Your task to perform on an android device: turn off improve location accuracy Image 0: 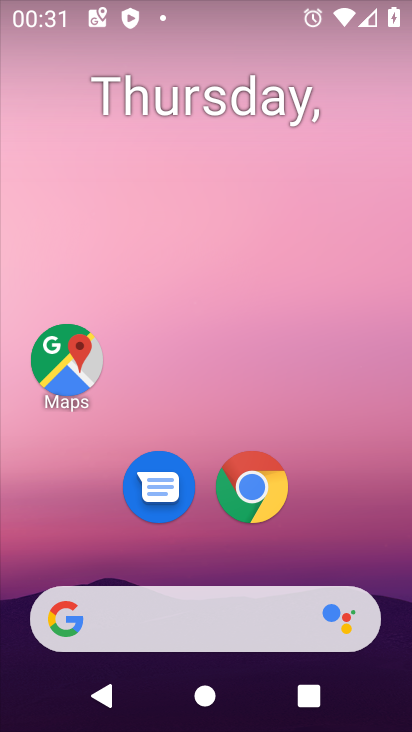
Step 0: drag from (350, 561) to (380, 34)
Your task to perform on an android device: turn off improve location accuracy Image 1: 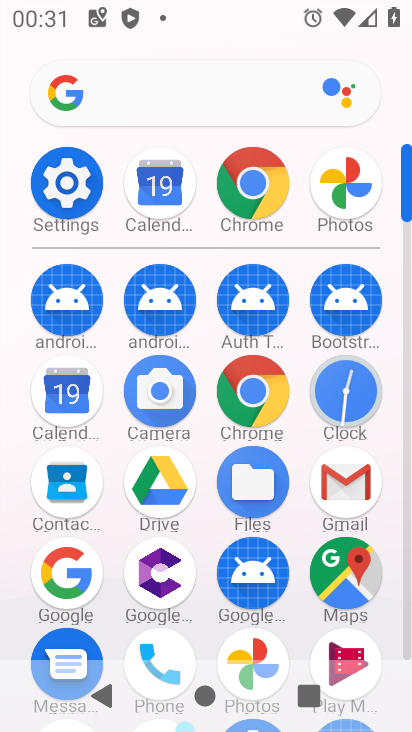
Step 1: click (71, 177)
Your task to perform on an android device: turn off improve location accuracy Image 2: 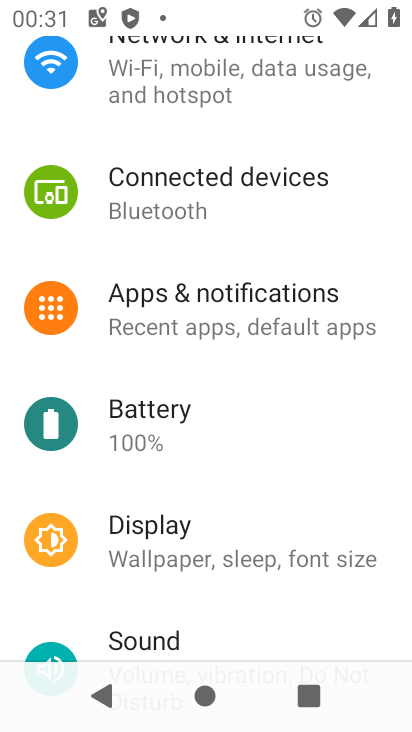
Step 2: drag from (270, 443) to (261, 185)
Your task to perform on an android device: turn off improve location accuracy Image 3: 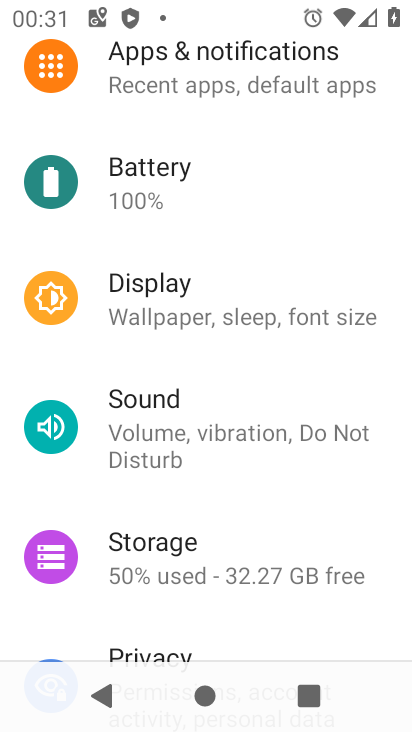
Step 3: drag from (240, 484) to (224, 183)
Your task to perform on an android device: turn off improve location accuracy Image 4: 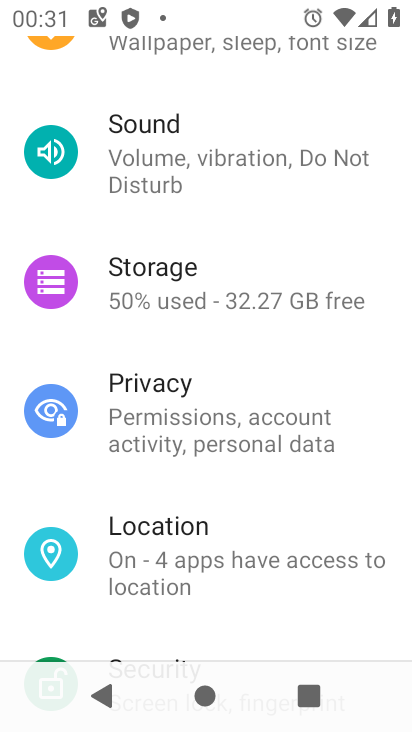
Step 4: drag from (244, 472) to (240, 211)
Your task to perform on an android device: turn off improve location accuracy Image 5: 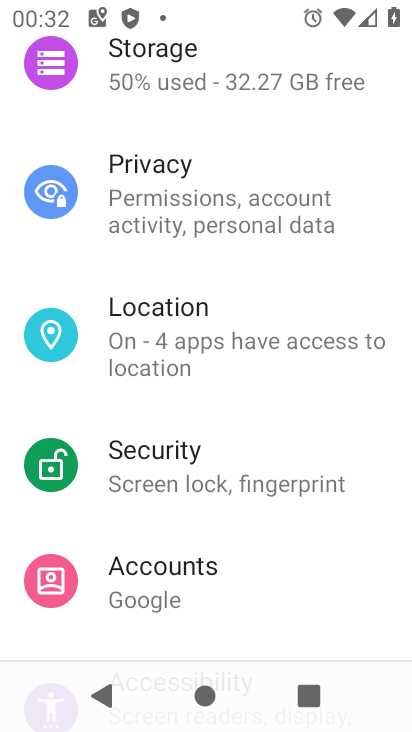
Step 5: click (158, 336)
Your task to perform on an android device: turn off improve location accuracy Image 6: 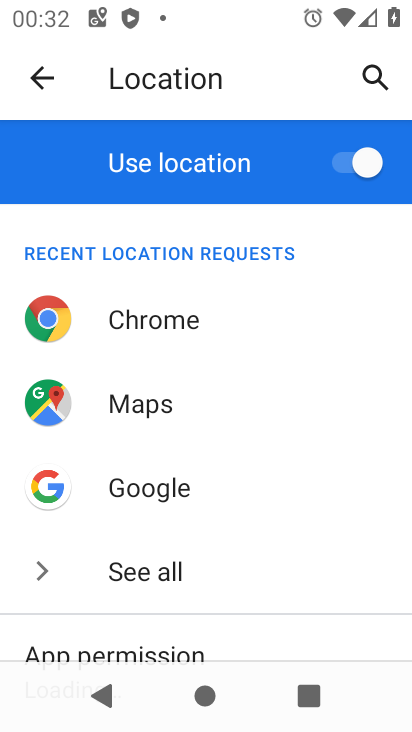
Step 6: drag from (201, 469) to (179, 81)
Your task to perform on an android device: turn off improve location accuracy Image 7: 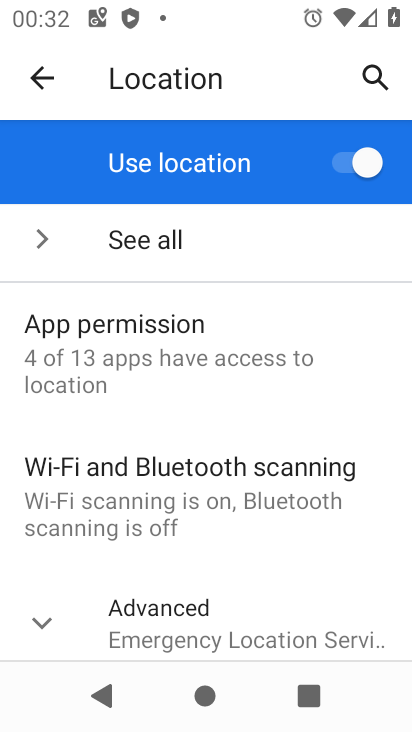
Step 7: click (38, 626)
Your task to perform on an android device: turn off improve location accuracy Image 8: 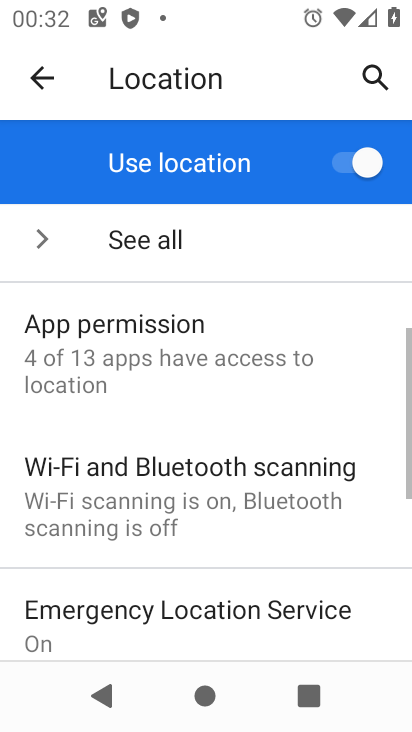
Step 8: drag from (188, 620) to (189, 172)
Your task to perform on an android device: turn off improve location accuracy Image 9: 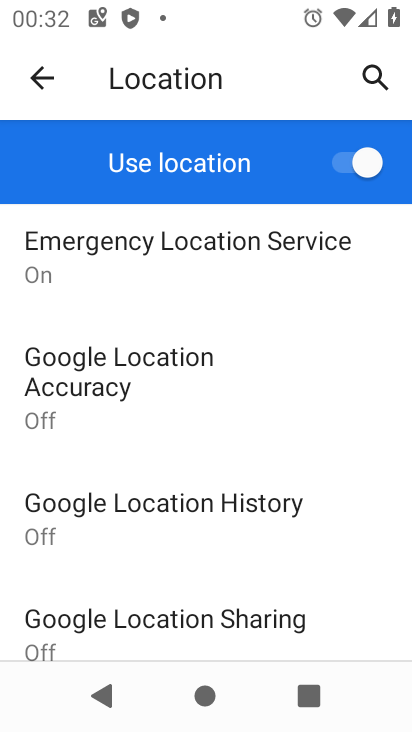
Step 9: click (94, 392)
Your task to perform on an android device: turn off improve location accuracy Image 10: 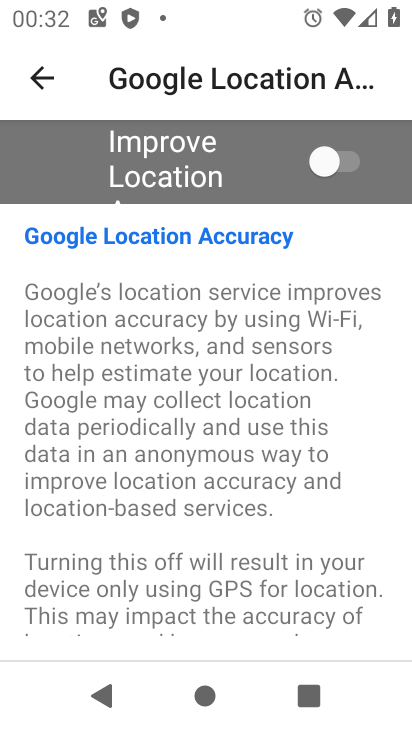
Step 10: task complete